Your task to perform on an android device: Go to network settings Image 0: 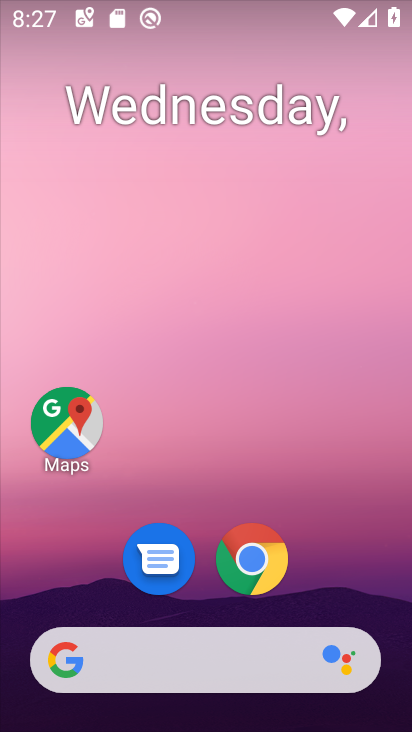
Step 0: drag from (372, 557) to (311, 68)
Your task to perform on an android device: Go to network settings Image 1: 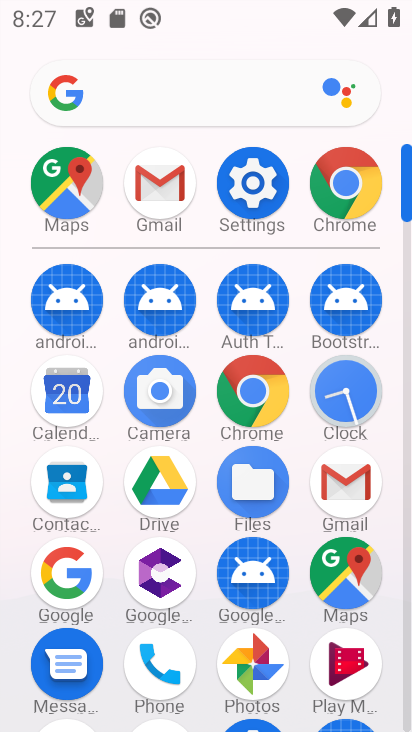
Step 1: click (252, 188)
Your task to perform on an android device: Go to network settings Image 2: 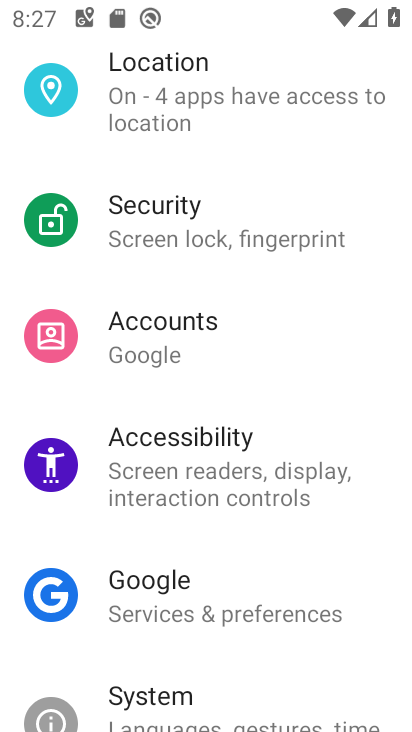
Step 2: drag from (298, 137) to (264, 571)
Your task to perform on an android device: Go to network settings Image 3: 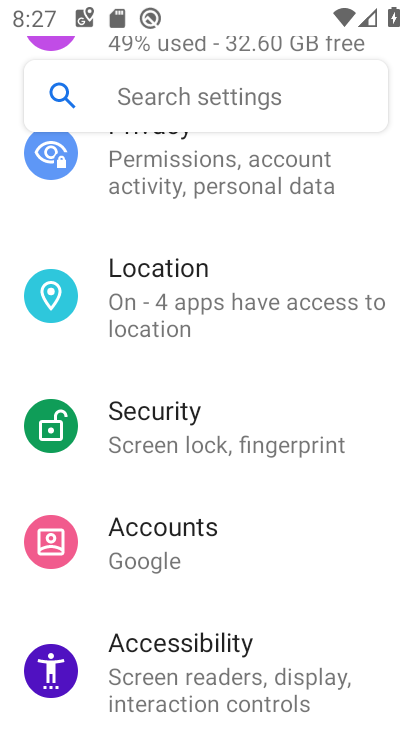
Step 3: drag from (346, 171) to (283, 631)
Your task to perform on an android device: Go to network settings Image 4: 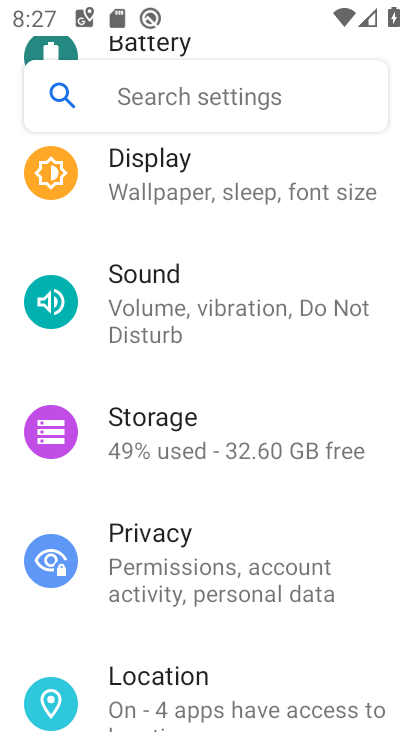
Step 4: drag from (316, 171) to (276, 629)
Your task to perform on an android device: Go to network settings Image 5: 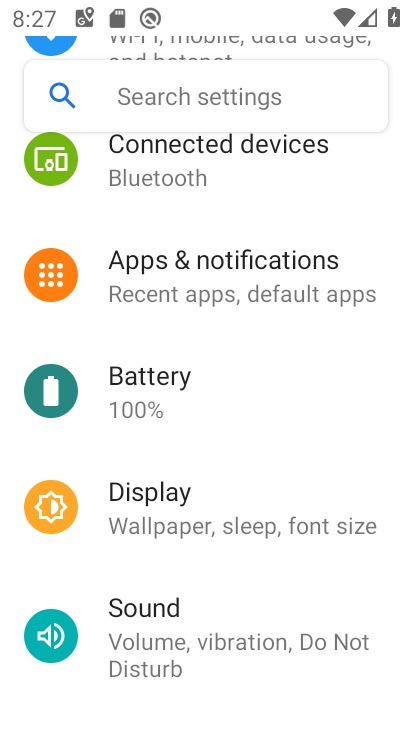
Step 5: drag from (288, 255) to (273, 649)
Your task to perform on an android device: Go to network settings Image 6: 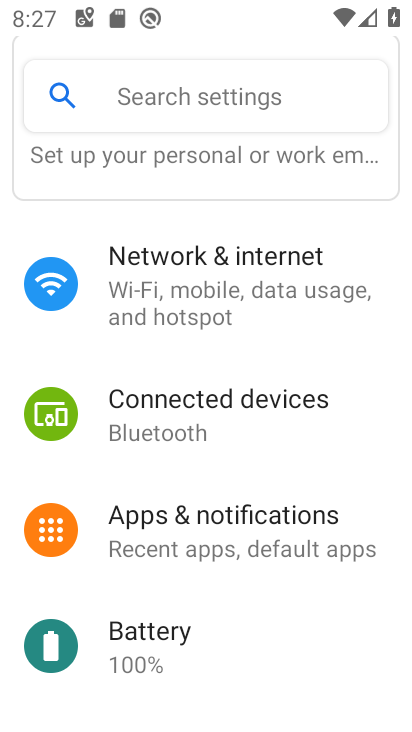
Step 6: click (261, 269)
Your task to perform on an android device: Go to network settings Image 7: 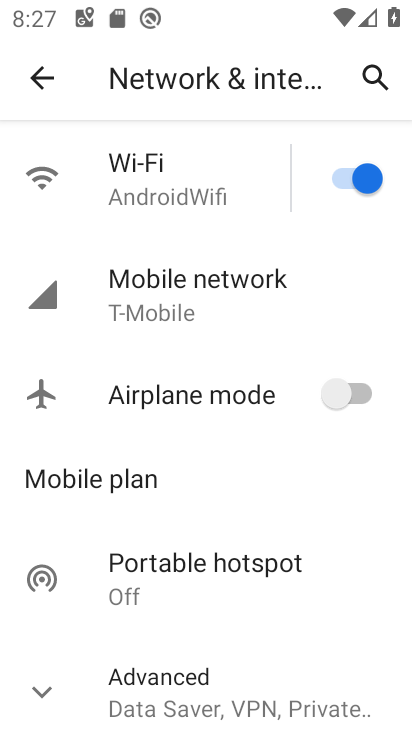
Step 7: click (254, 282)
Your task to perform on an android device: Go to network settings Image 8: 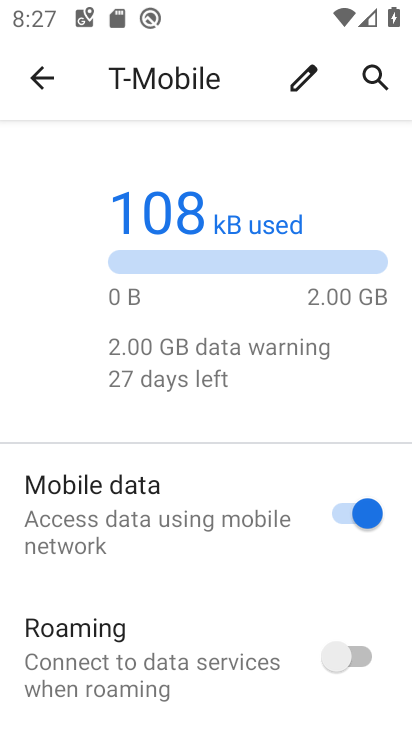
Step 8: drag from (230, 612) to (233, 230)
Your task to perform on an android device: Go to network settings Image 9: 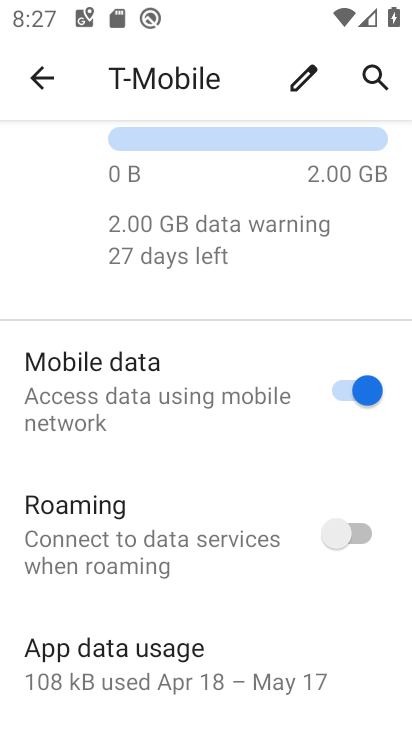
Step 9: drag from (219, 637) to (260, 261)
Your task to perform on an android device: Go to network settings Image 10: 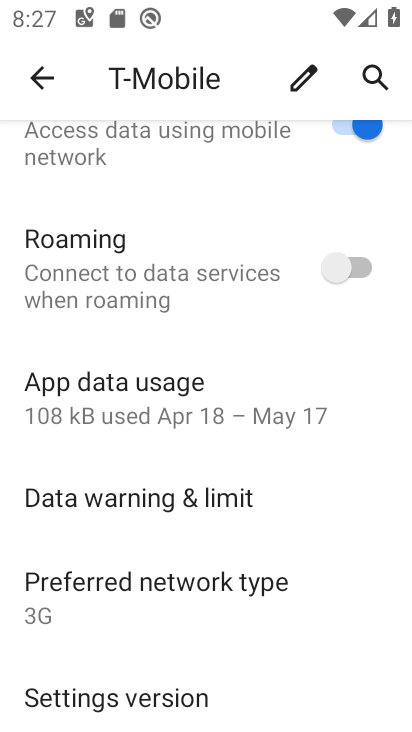
Step 10: drag from (320, 634) to (256, 294)
Your task to perform on an android device: Go to network settings Image 11: 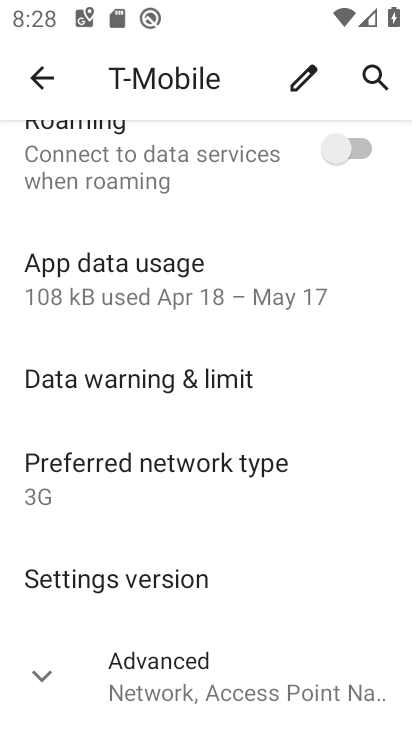
Step 11: click (214, 681)
Your task to perform on an android device: Go to network settings Image 12: 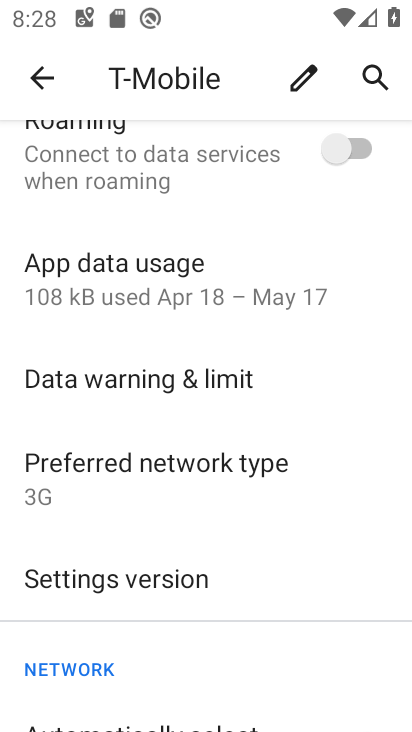
Step 12: task complete